Your task to perform on an android device: Open calendar and show me the second week of next month Image 0: 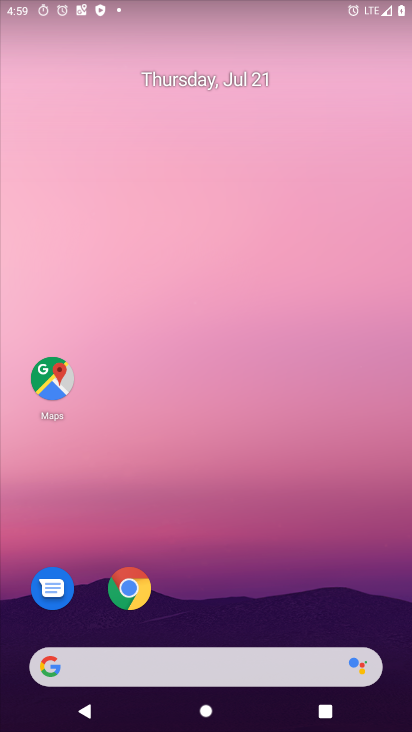
Step 0: drag from (301, 581) to (339, 48)
Your task to perform on an android device: Open calendar and show me the second week of next month Image 1: 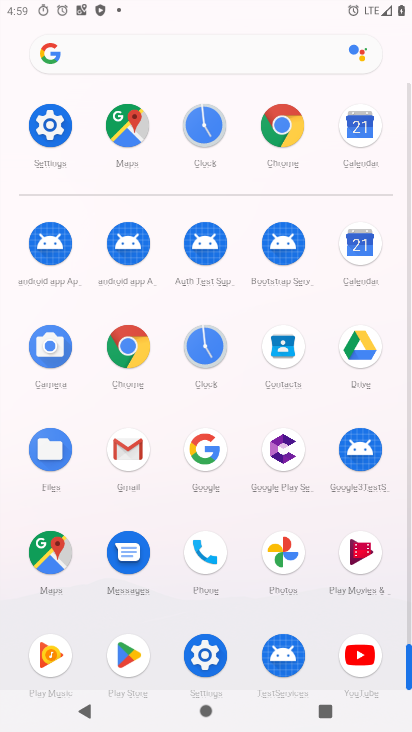
Step 1: click (359, 238)
Your task to perform on an android device: Open calendar and show me the second week of next month Image 2: 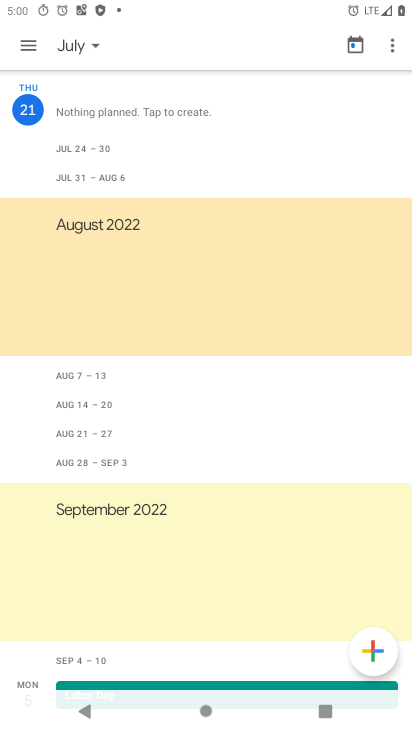
Step 2: click (73, 53)
Your task to perform on an android device: Open calendar and show me the second week of next month Image 3: 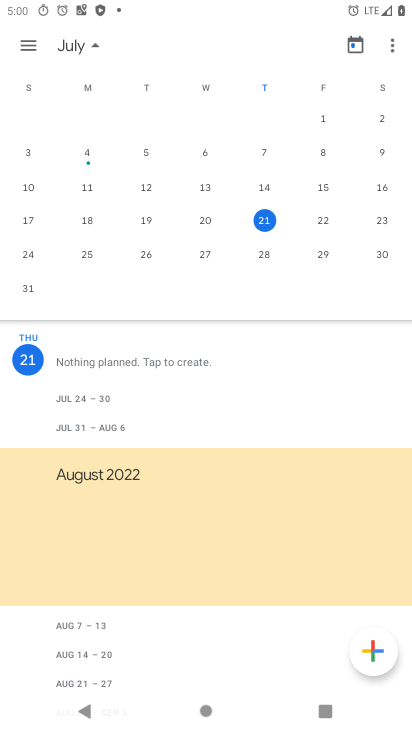
Step 3: drag from (346, 171) to (22, 169)
Your task to perform on an android device: Open calendar and show me the second week of next month Image 4: 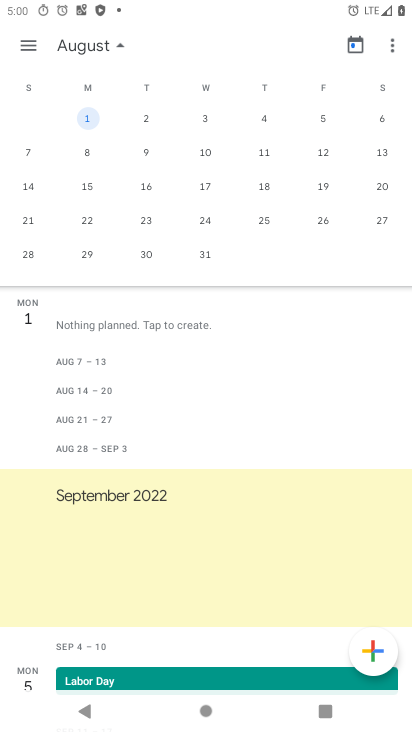
Step 4: click (262, 148)
Your task to perform on an android device: Open calendar and show me the second week of next month Image 5: 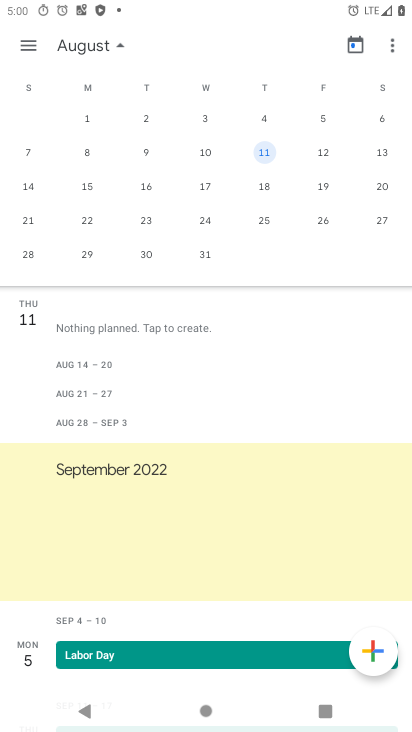
Step 5: task complete